Your task to perform on an android device: See recent photos Image 0: 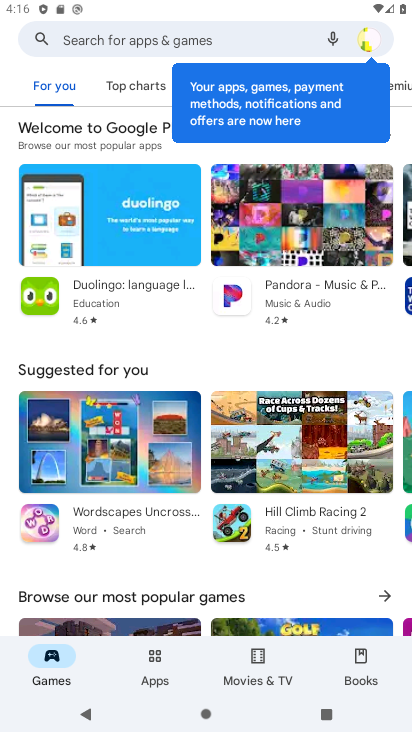
Step 0: press home button
Your task to perform on an android device: See recent photos Image 1: 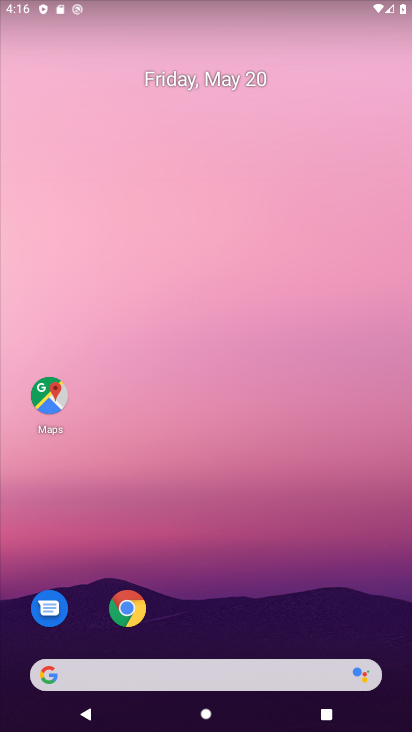
Step 1: drag from (218, 385) to (211, 119)
Your task to perform on an android device: See recent photos Image 2: 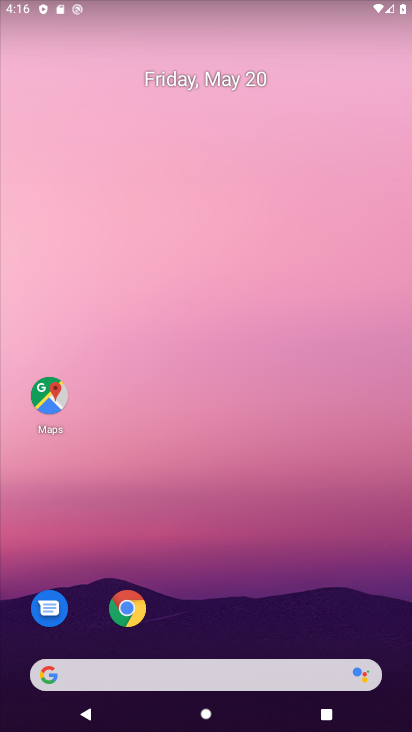
Step 2: drag from (196, 642) to (340, 19)
Your task to perform on an android device: See recent photos Image 3: 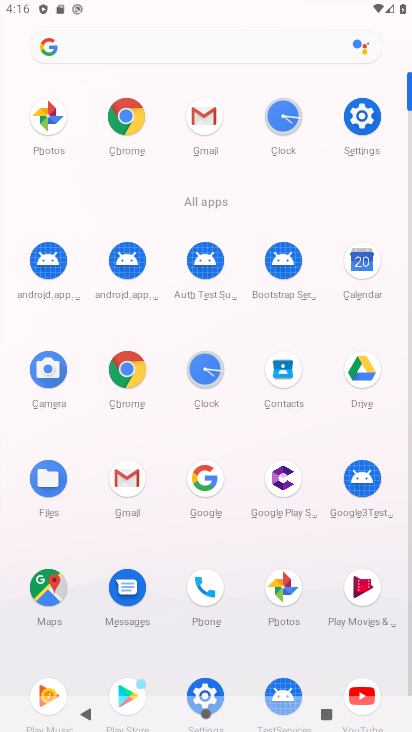
Step 3: click (288, 579)
Your task to perform on an android device: See recent photos Image 4: 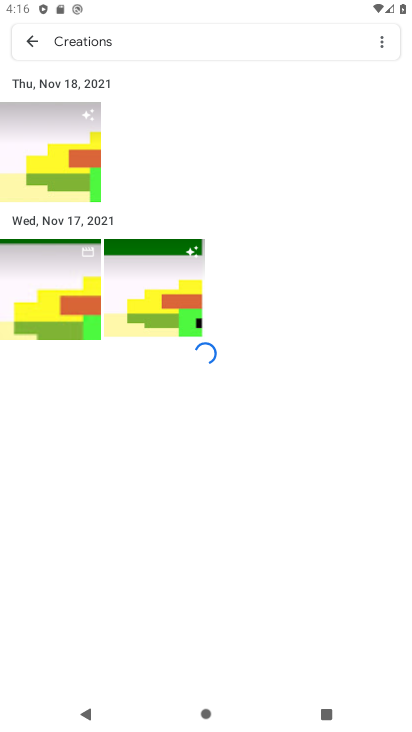
Step 4: drag from (230, 251) to (239, 505)
Your task to perform on an android device: See recent photos Image 5: 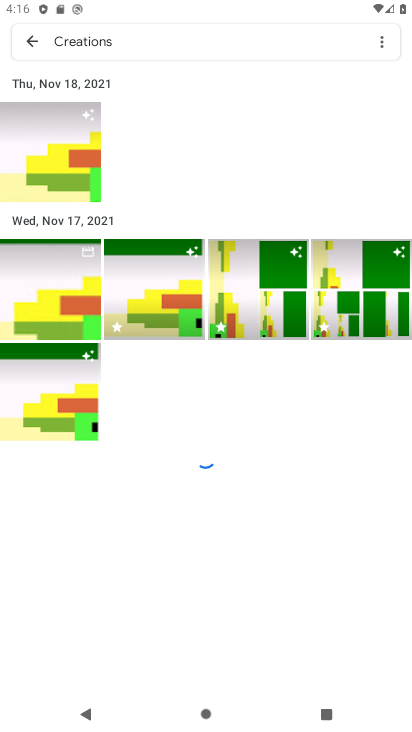
Step 5: click (38, 39)
Your task to perform on an android device: See recent photos Image 6: 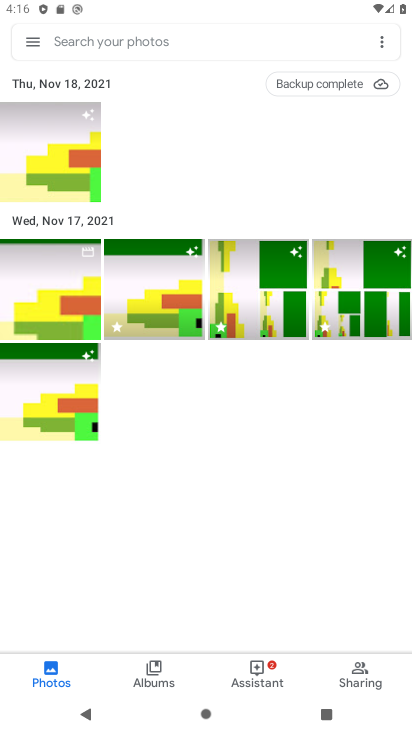
Step 6: click (52, 663)
Your task to perform on an android device: See recent photos Image 7: 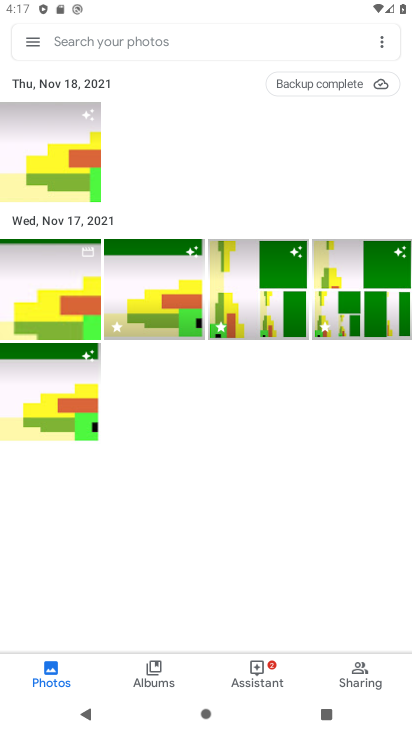
Step 7: task complete